Your task to perform on an android device: change keyboard looks Image 0: 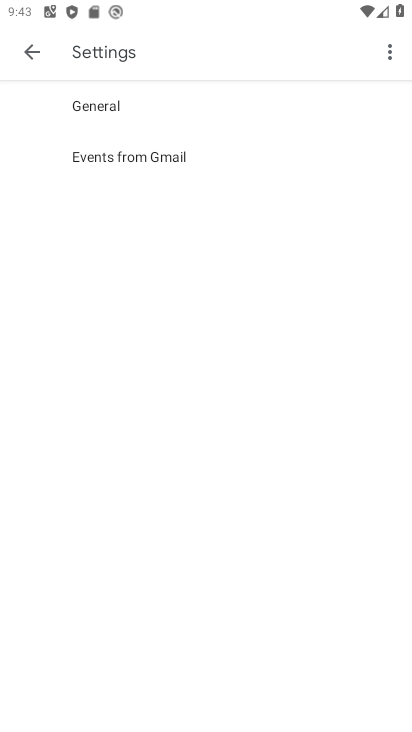
Step 0: press home button
Your task to perform on an android device: change keyboard looks Image 1: 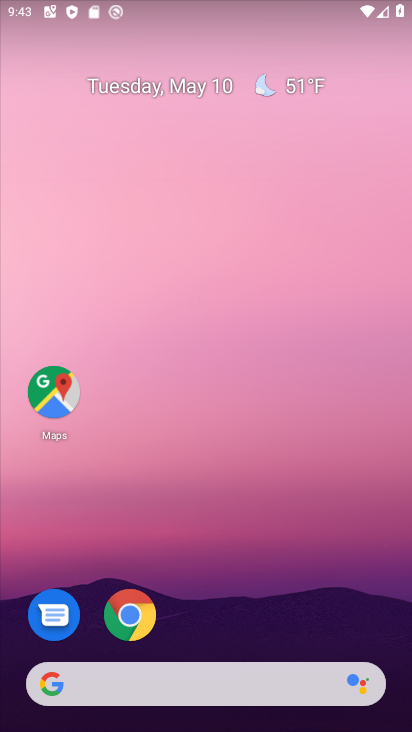
Step 1: drag from (252, 611) to (173, 93)
Your task to perform on an android device: change keyboard looks Image 2: 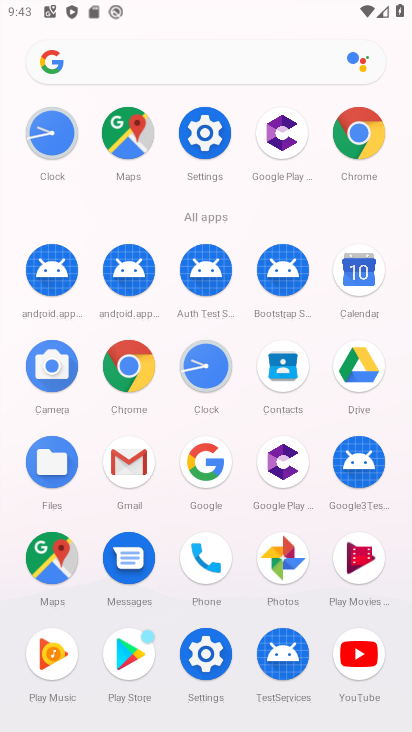
Step 2: click (209, 133)
Your task to perform on an android device: change keyboard looks Image 3: 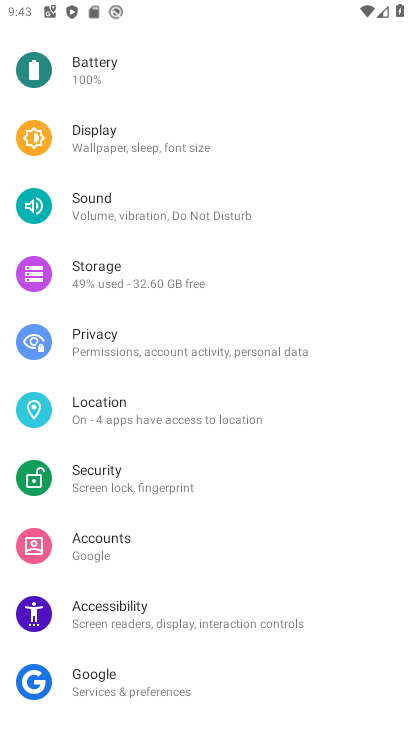
Step 3: drag from (223, 690) to (231, 209)
Your task to perform on an android device: change keyboard looks Image 4: 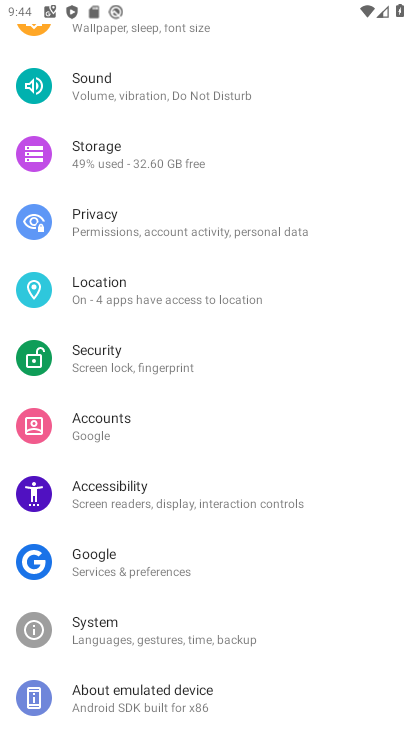
Step 4: click (200, 682)
Your task to perform on an android device: change keyboard looks Image 5: 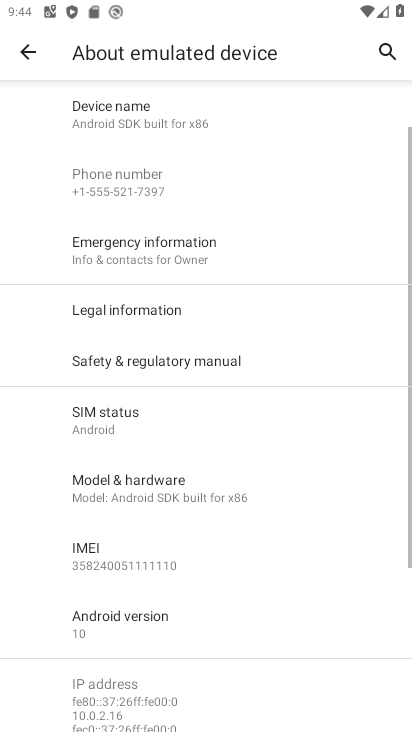
Step 5: click (24, 50)
Your task to perform on an android device: change keyboard looks Image 6: 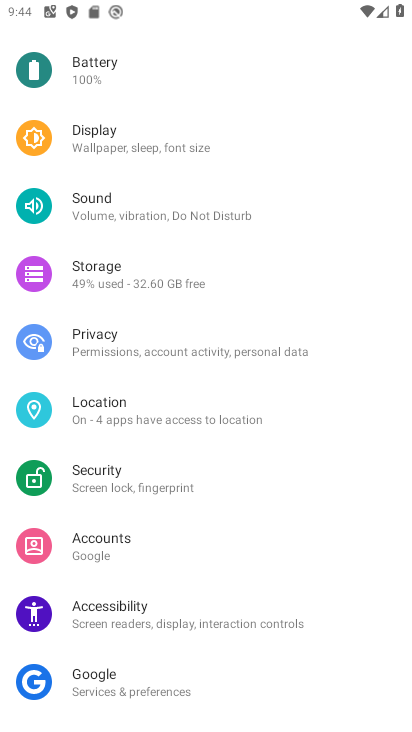
Step 6: drag from (151, 671) to (164, 297)
Your task to perform on an android device: change keyboard looks Image 7: 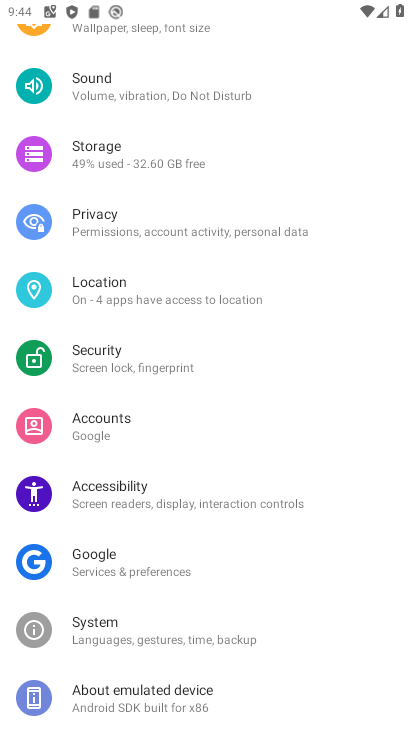
Step 7: click (140, 625)
Your task to perform on an android device: change keyboard looks Image 8: 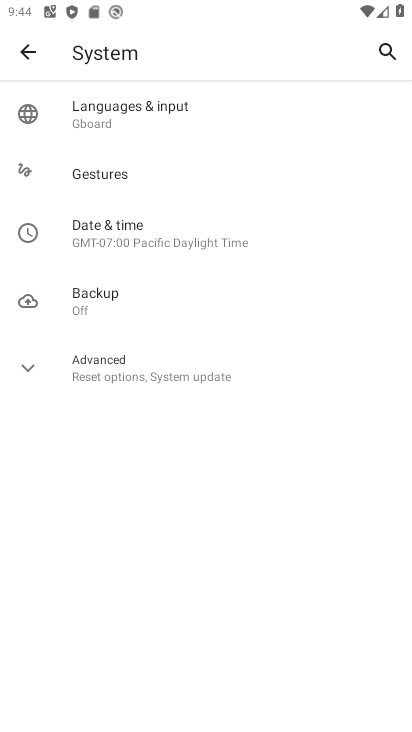
Step 8: click (114, 113)
Your task to perform on an android device: change keyboard looks Image 9: 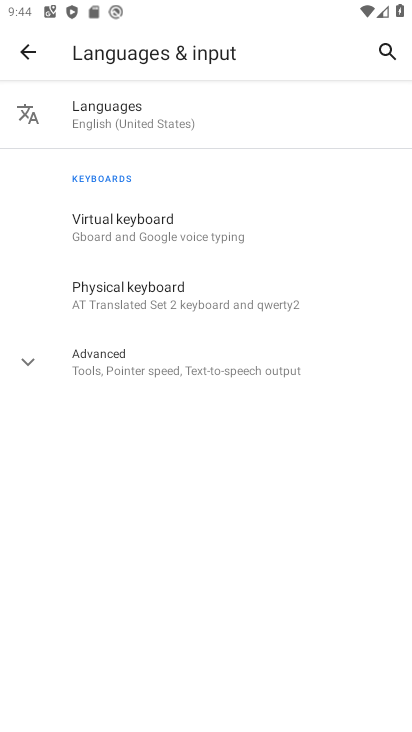
Step 9: click (132, 228)
Your task to perform on an android device: change keyboard looks Image 10: 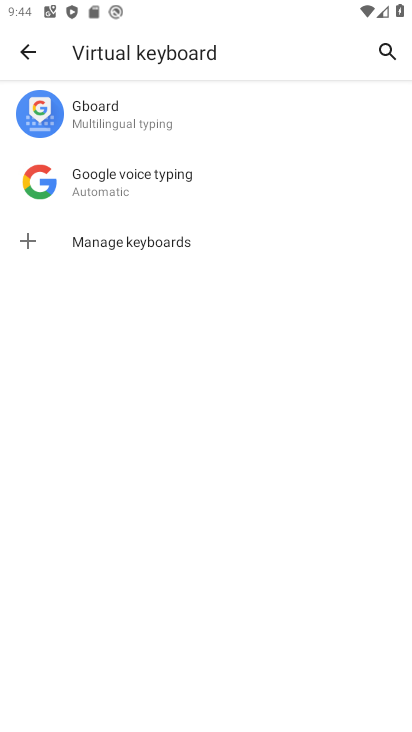
Step 10: click (139, 105)
Your task to perform on an android device: change keyboard looks Image 11: 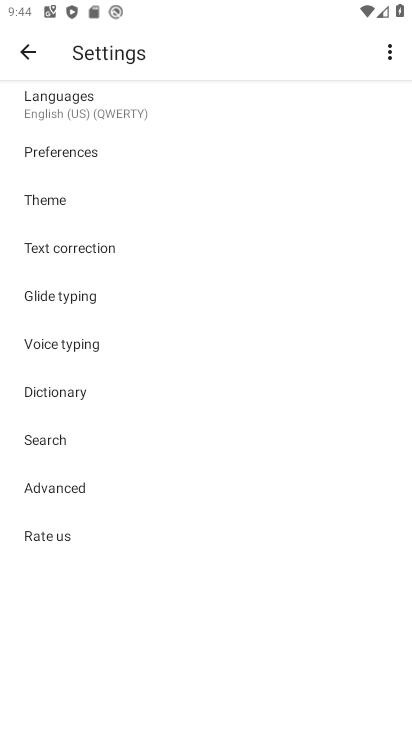
Step 11: click (101, 202)
Your task to perform on an android device: change keyboard looks Image 12: 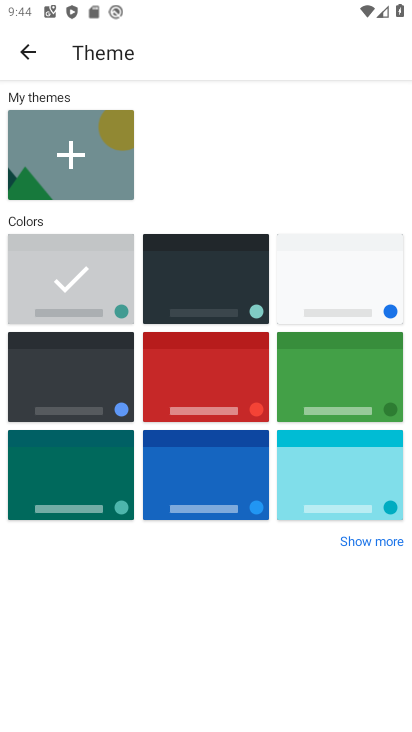
Step 12: click (214, 281)
Your task to perform on an android device: change keyboard looks Image 13: 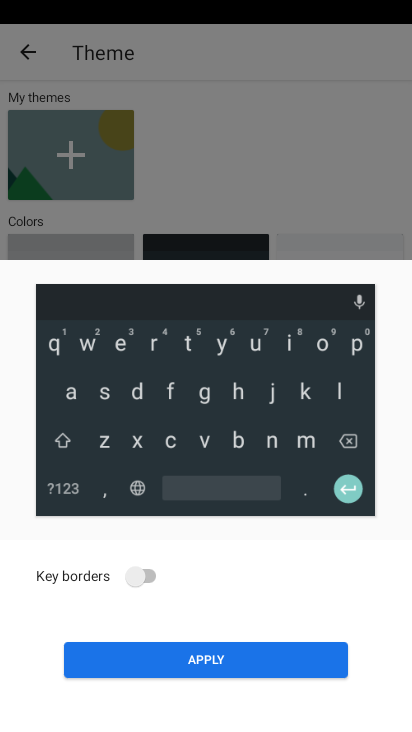
Step 13: click (218, 657)
Your task to perform on an android device: change keyboard looks Image 14: 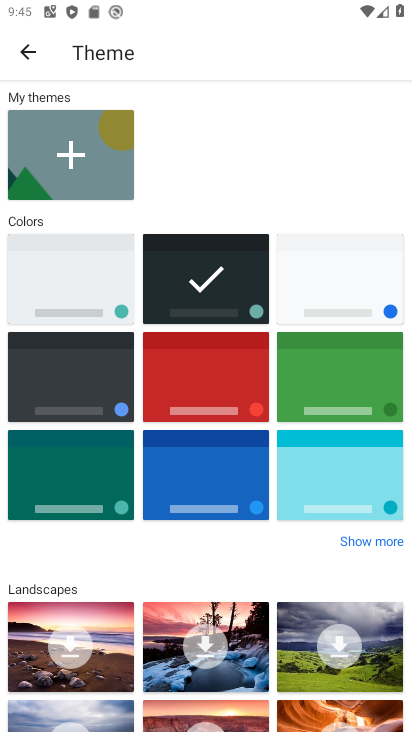
Step 14: task complete